Your task to perform on an android device: read, delete, or share a saved page in the chrome app Image 0: 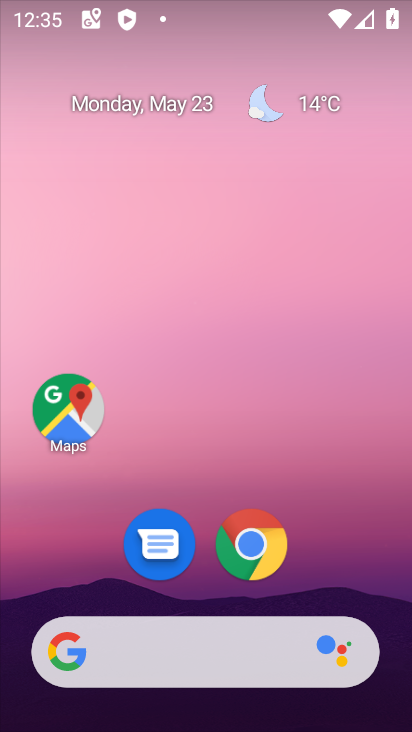
Step 0: click (258, 546)
Your task to perform on an android device: read, delete, or share a saved page in the chrome app Image 1: 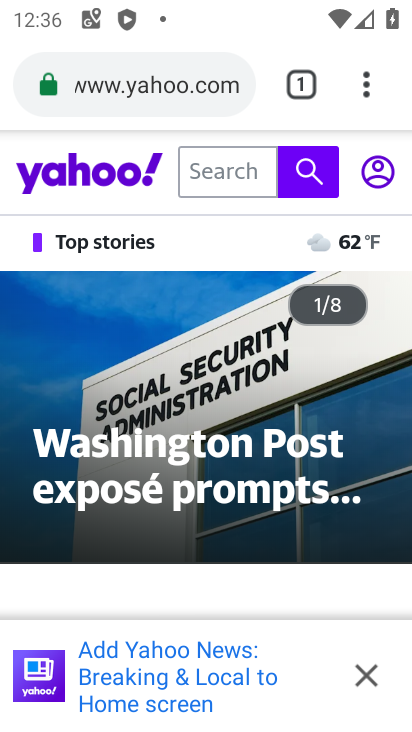
Step 1: task complete